Your task to perform on an android device: Go to Yahoo.com Image 0: 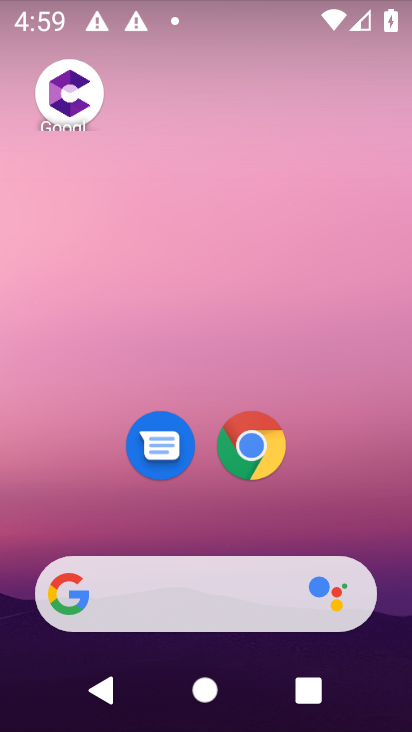
Step 0: click (245, 445)
Your task to perform on an android device: Go to Yahoo.com Image 1: 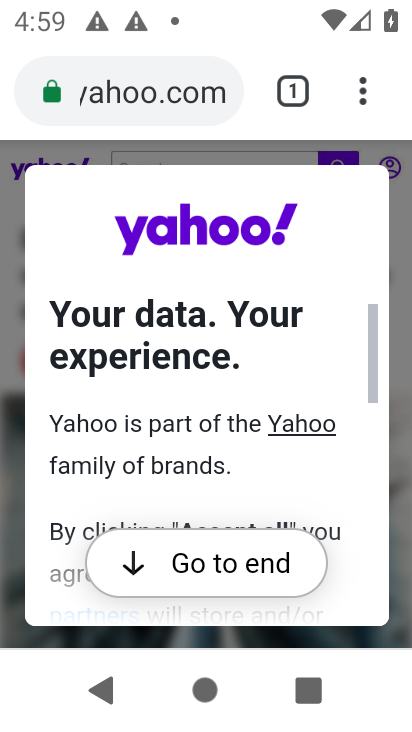
Step 1: task complete